Your task to perform on an android device: Open internet settings Image 0: 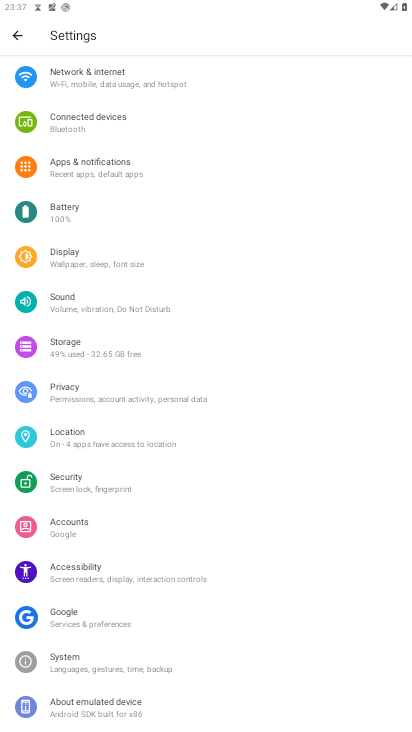
Step 0: press home button
Your task to perform on an android device: Open internet settings Image 1: 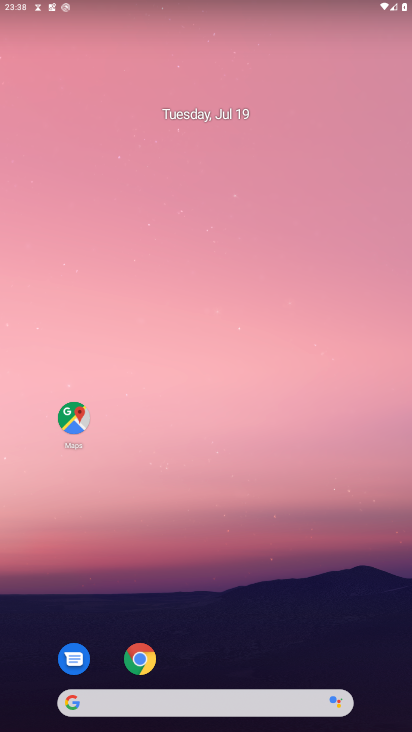
Step 1: drag from (322, 615) to (293, 184)
Your task to perform on an android device: Open internet settings Image 2: 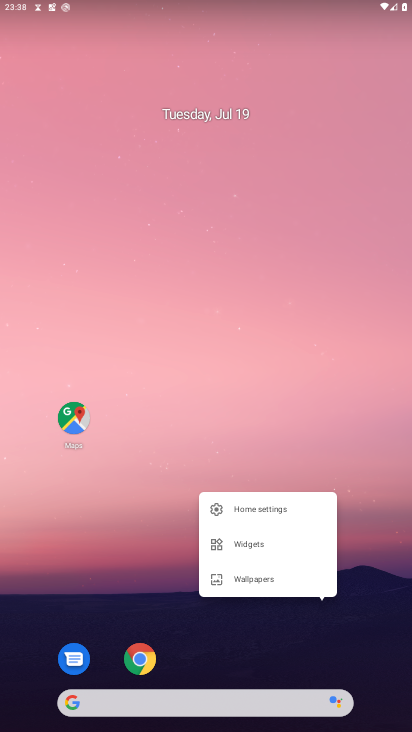
Step 2: click (254, 422)
Your task to perform on an android device: Open internet settings Image 3: 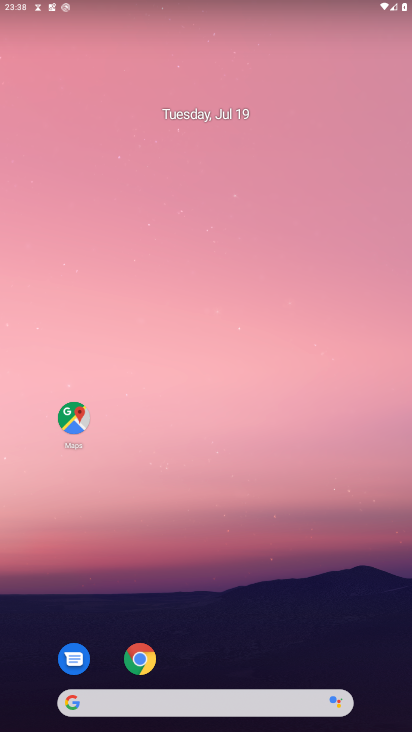
Step 3: drag from (328, 604) to (289, 55)
Your task to perform on an android device: Open internet settings Image 4: 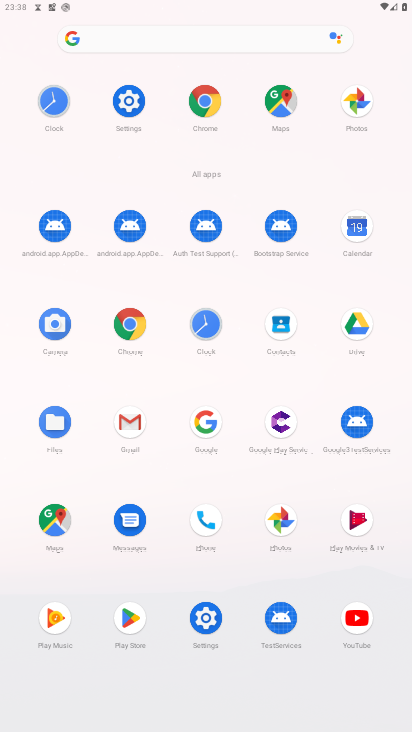
Step 4: click (128, 113)
Your task to perform on an android device: Open internet settings Image 5: 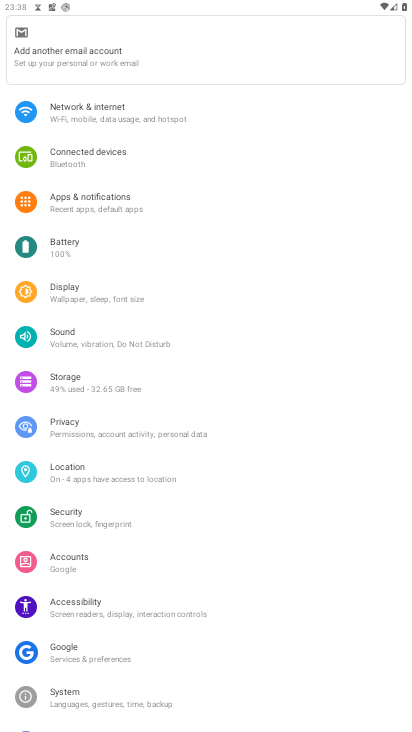
Step 5: click (131, 113)
Your task to perform on an android device: Open internet settings Image 6: 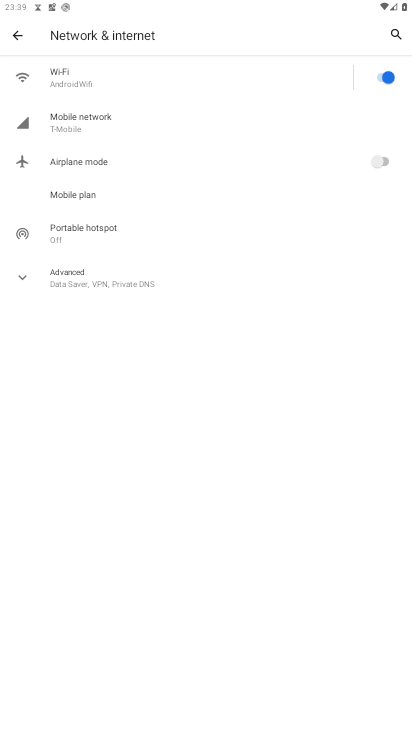
Step 6: task complete